Your task to perform on an android device: find photos in the google photos app Image 0: 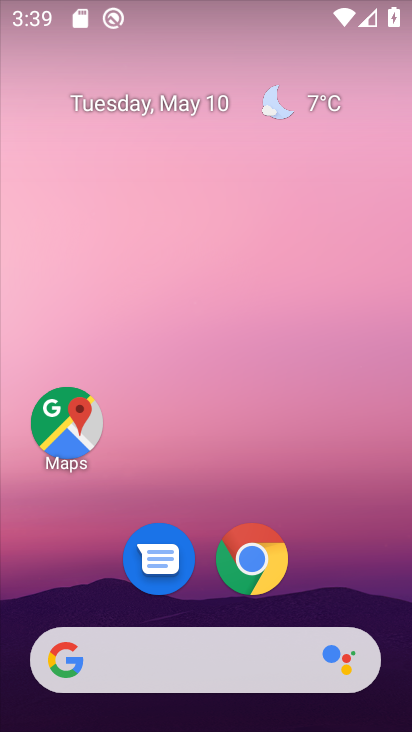
Step 0: press back button
Your task to perform on an android device: find photos in the google photos app Image 1: 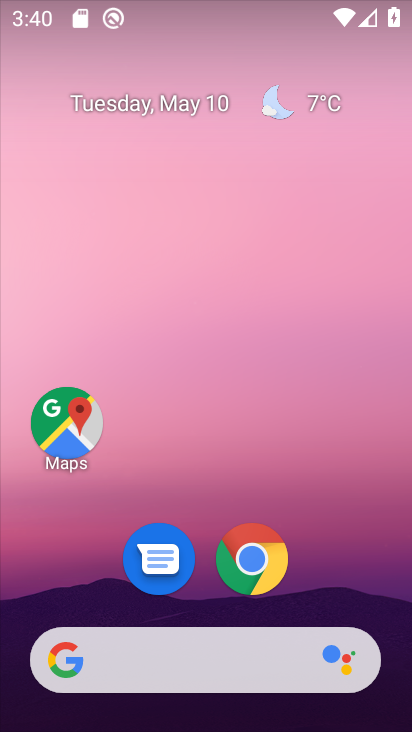
Step 1: drag from (105, 619) to (250, 17)
Your task to perform on an android device: find photos in the google photos app Image 2: 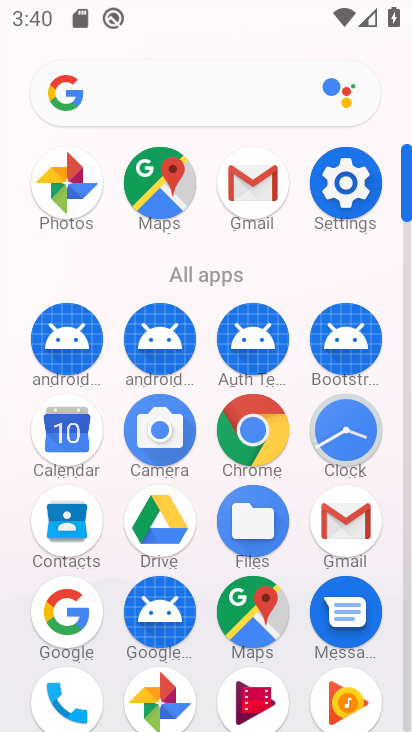
Step 2: drag from (123, 638) to (182, 378)
Your task to perform on an android device: find photos in the google photos app Image 3: 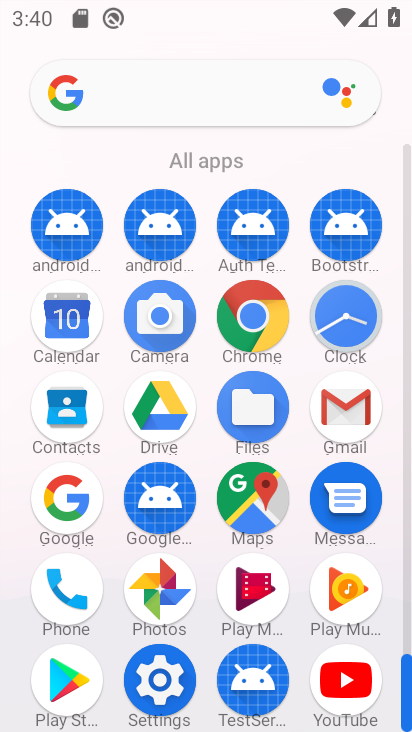
Step 3: click (164, 579)
Your task to perform on an android device: find photos in the google photos app Image 4: 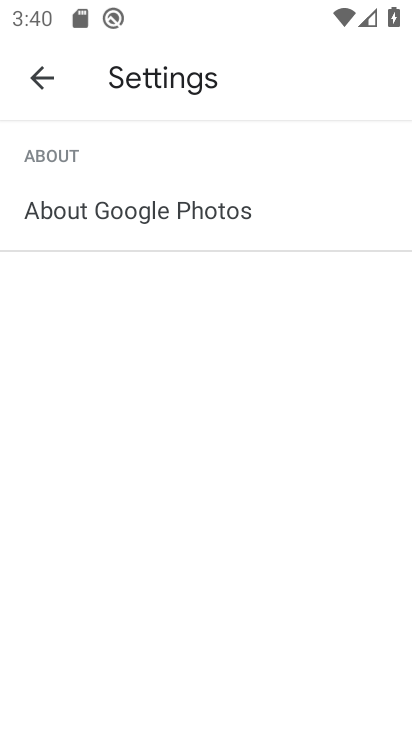
Step 4: click (43, 64)
Your task to perform on an android device: find photos in the google photos app Image 5: 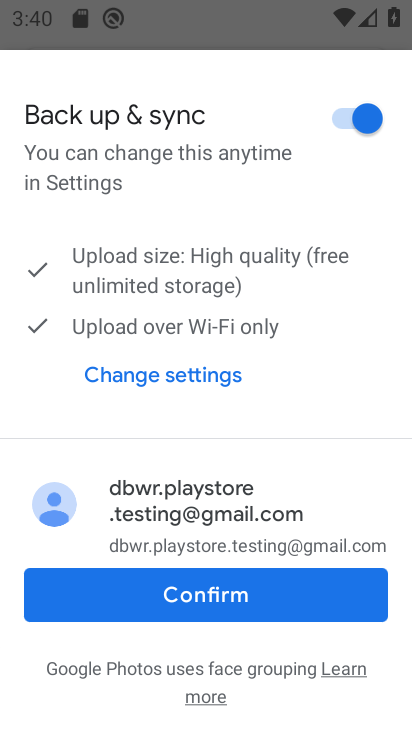
Step 5: click (217, 578)
Your task to perform on an android device: find photos in the google photos app Image 6: 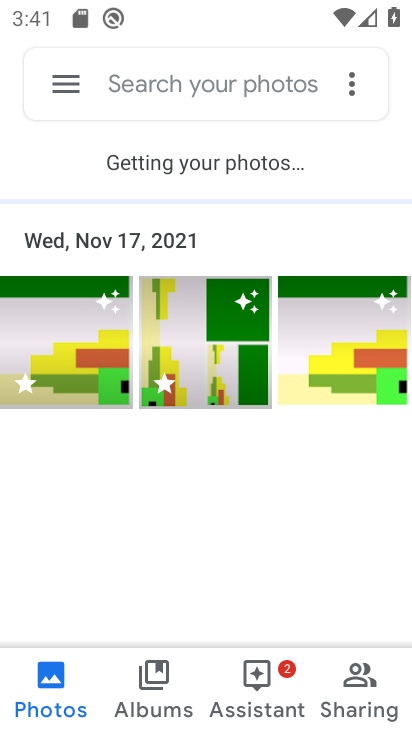
Step 6: task complete